Your task to perform on an android device: turn off javascript in the chrome app Image 0: 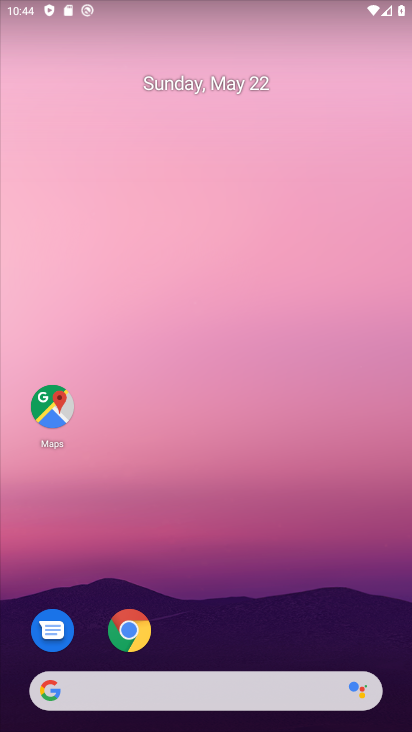
Step 0: drag from (356, 617) to (320, 174)
Your task to perform on an android device: turn off javascript in the chrome app Image 1: 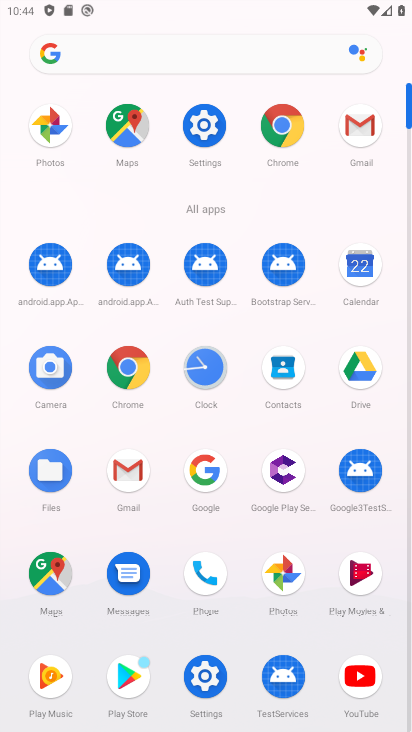
Step 1: click (133, 370)
Your task to perform on an android device: turn off javascript in the chrome app Image 2: 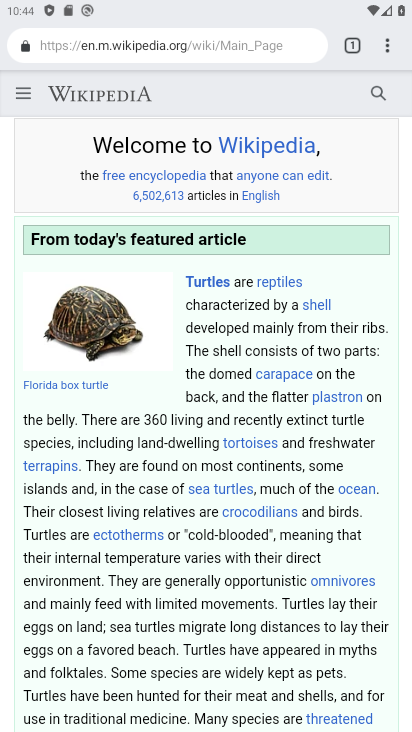
Step 2: click (389, 46)
Your task to perform on an android device: turn off javascript in the chrome app Image 3: 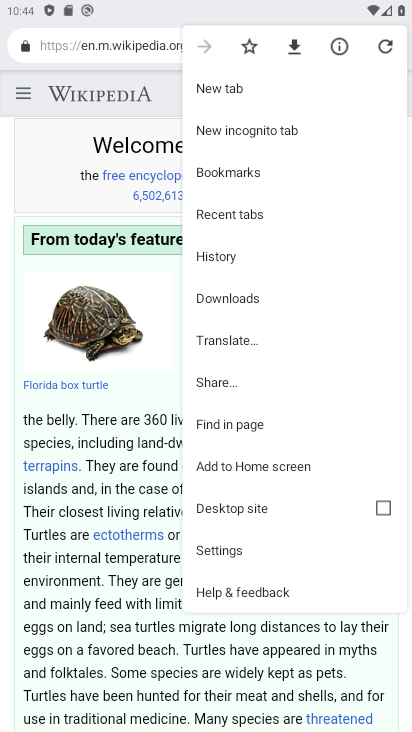
Step 3: click (249, 556)
Your task to perform on an android device: turn off javascript in the chrome app Image 4: 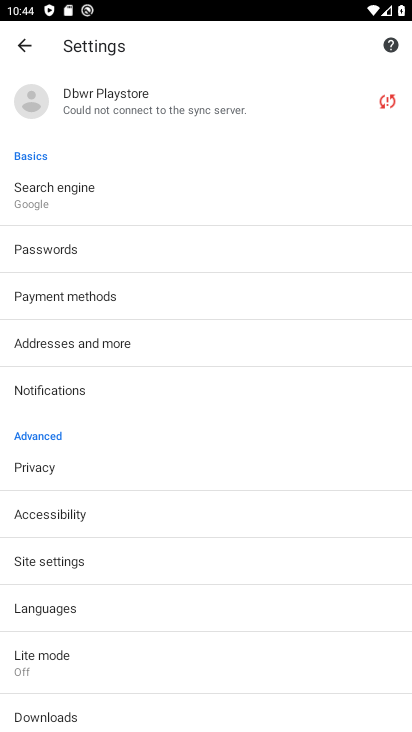
Step 4: drag from (254, 629) to (260, 430)
Your task to perform on an android device: turn off javascript in the chrome app Image 5: 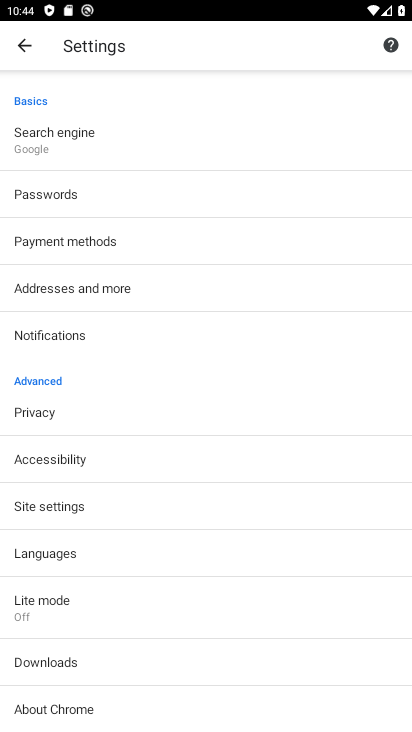
Step 5: drag from (271, 626) to (289, 522)
Your task to perform on an android device: turn off javascript in the chrome app Image 6: 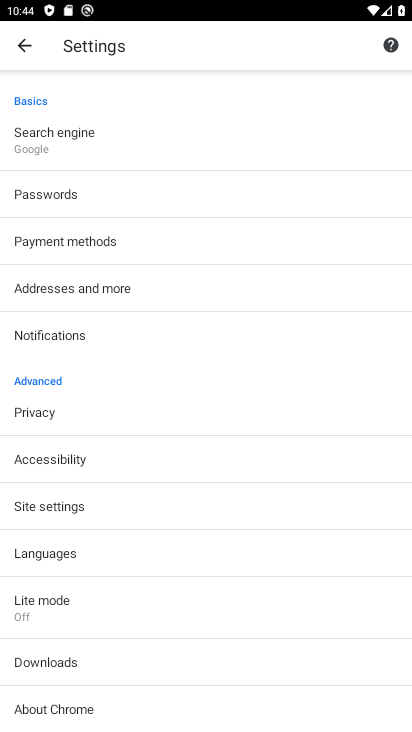
Step 6: drag from (291, 639) to (310, 536)
Your task to perform on an android device: turn off javascript in the chrome app Image 7: 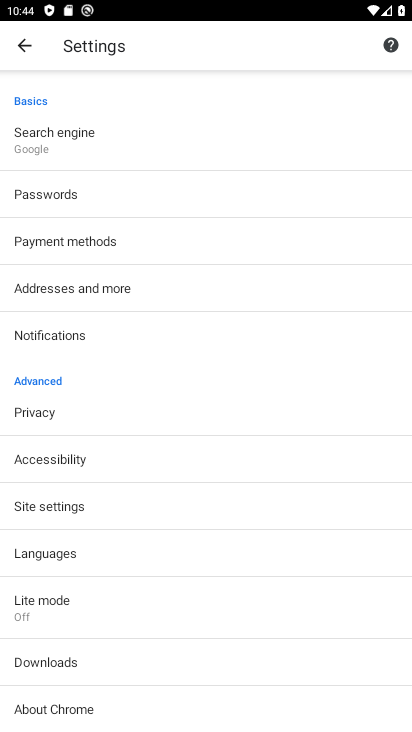
Step 7: drag from (292, 663) to (296, 572)
Your task to perform on an android device: turn off javascript in the chrome app Image 8: 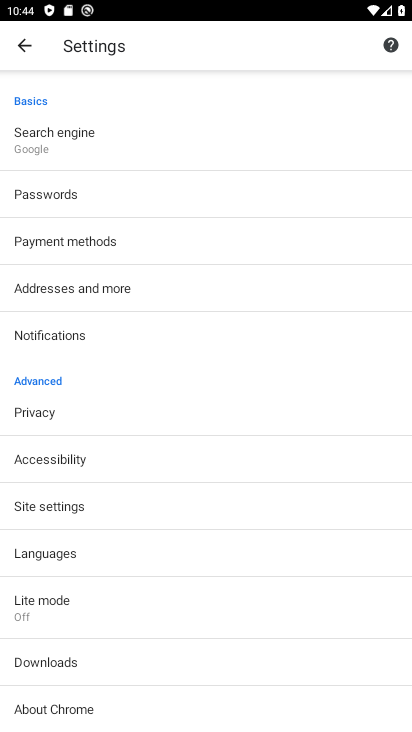
Step 8: drag from (285, 667) to (294, 572)
Your task to perform on an android device: turn off javascript in the chrome app Image 9: 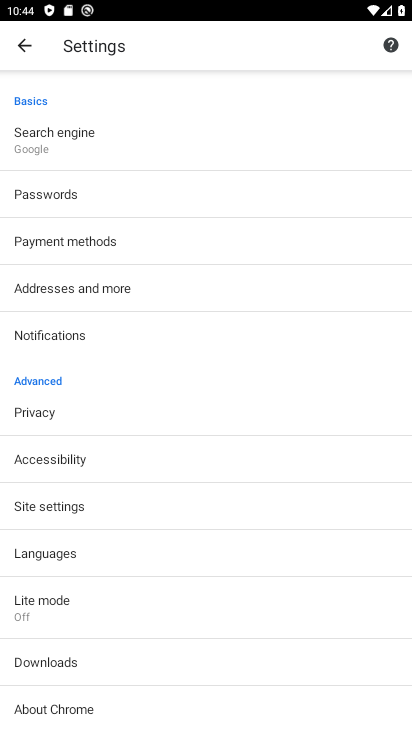
Step 9: drag from (287, 611) to (303, 474)
Your task to perform on an android device: turn off javascript in the chrome app Image 10: 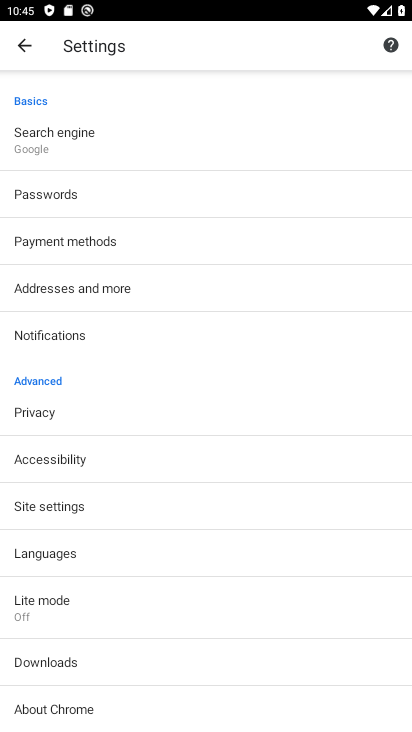
Step 10: drag from (261, 639) to (257, 538)
Your task to perform on an android device: turn off javascript in the chrome app Image 11: 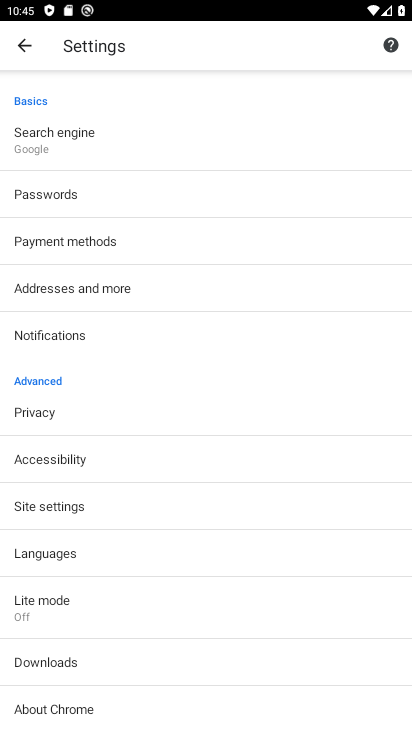
Step 11: click (224, 517)
Your task to perform on an android device: turn off javascript in the chrome app Image 12: 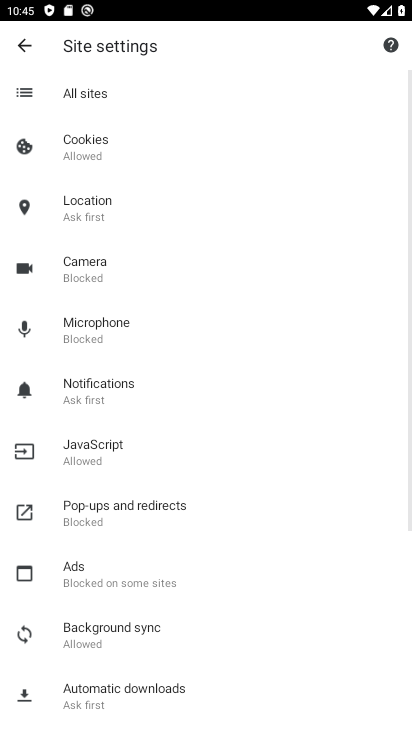
Step 12: drag from (281, 672) to (282, 525)
Your task to perform on an android device: turn off javascript in the chrome app Image 13: 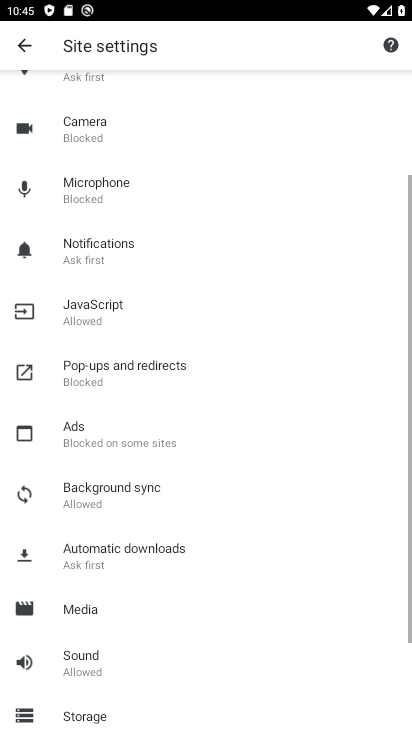
Step 13: drag from (277, 665) to (274, 547)
Your task to perform on an android device: turn off javascript in the chrome app Image 14: 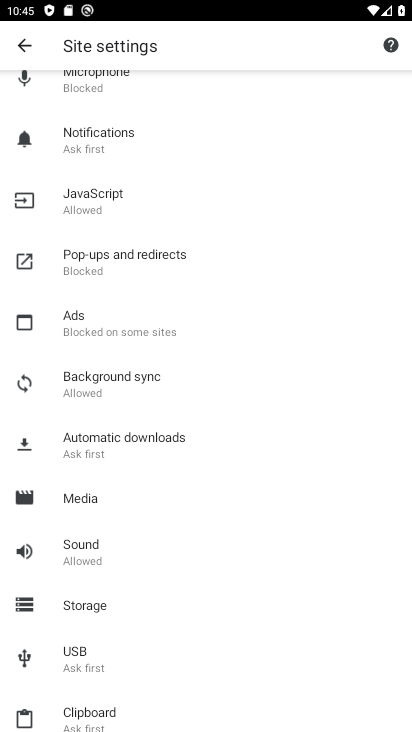
Step 14: drag from (278, 682) to (277, 564)
Your task to perform on an android device: turn off javascript in the chrome app Image 15: 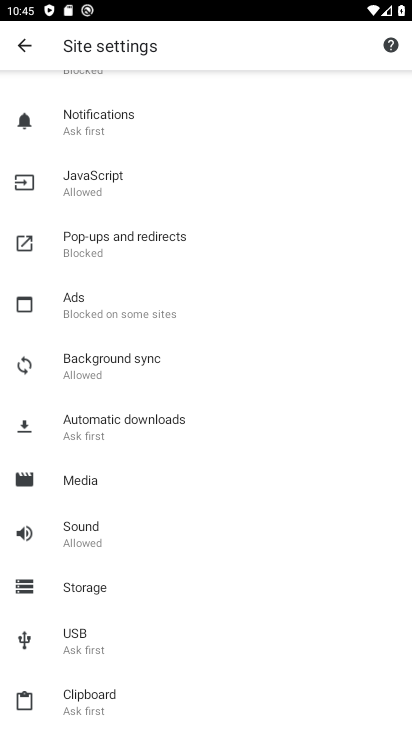
Step 15: drag from (272, 681) to (276, 553)
Your task to perform on an android device: turn off javascript in the chrome app Image 16: 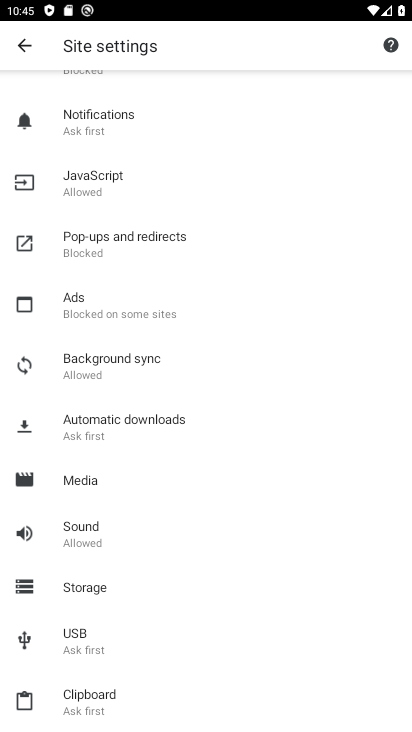
Step 16: drag from (243, 480) to (244, 581)
Your task to perform on an android device: turn off javascript in the chrome app Image 17: 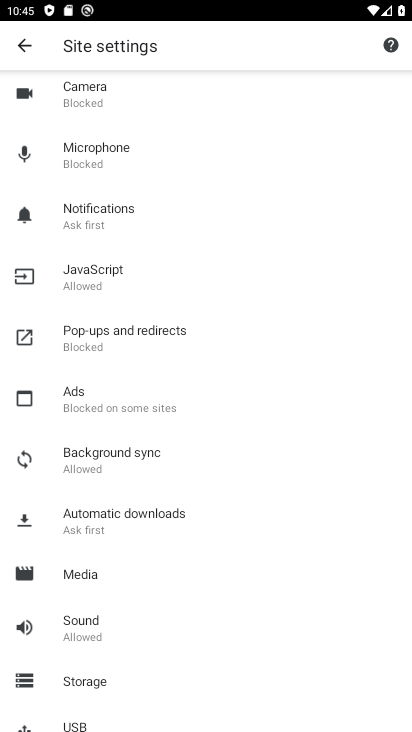
Step 17: drag from (262, 382) to (258, 510)
Your task to perform on an android device: turn off javascript in the chrome app Image 18: 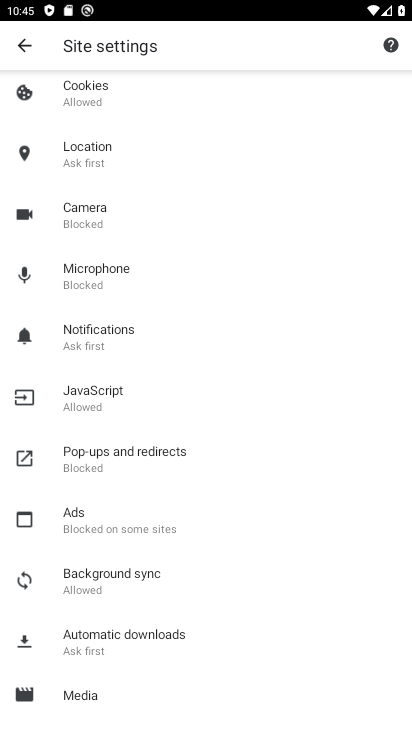
Step 18: click (108, 402)
Your task to perform on an android device: turn off javascript in the chrome app Image 19: 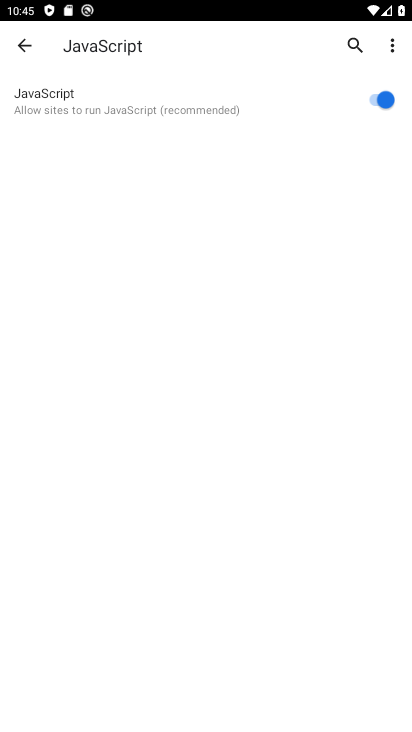
Step 19: click (384, 88)
Your task to perform on an android device: turn off javascript in the chrome app Image 20: 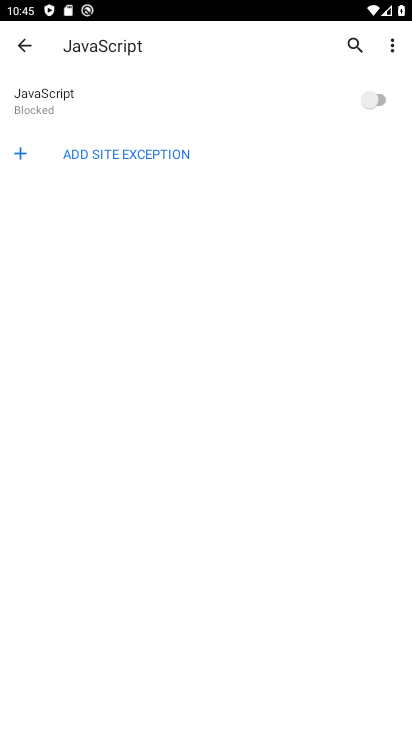
Step 20: task complete